Your task to perform on an android device: Go to ESPN.com Image 0: 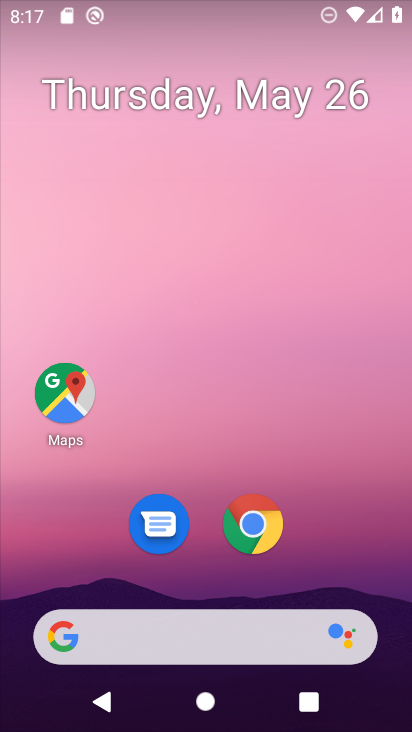
Step 0: click (248, 640)
Your task to perform on an android device: Go to ESPN.com Image 1: 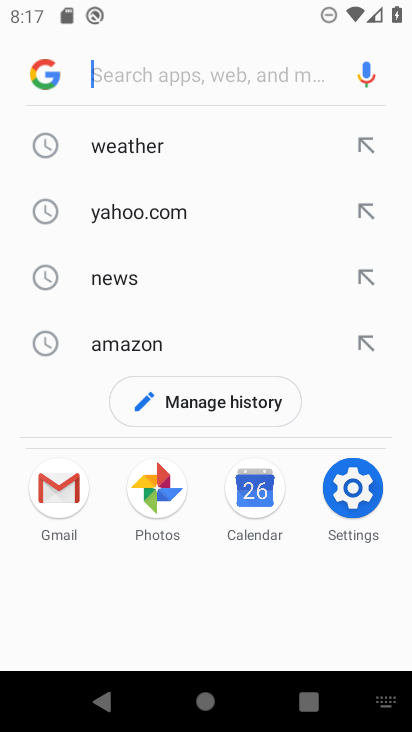
Step 1: type "espn.com"
Your task to perform on an android device: Go to ESPN.com Image 2: 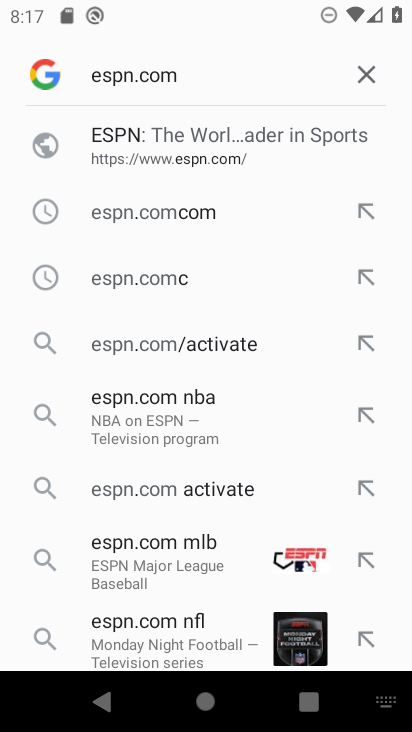
Step 2: click (115, 143)
Your task to perform on an android device: Go to ESPN.com Image 3: 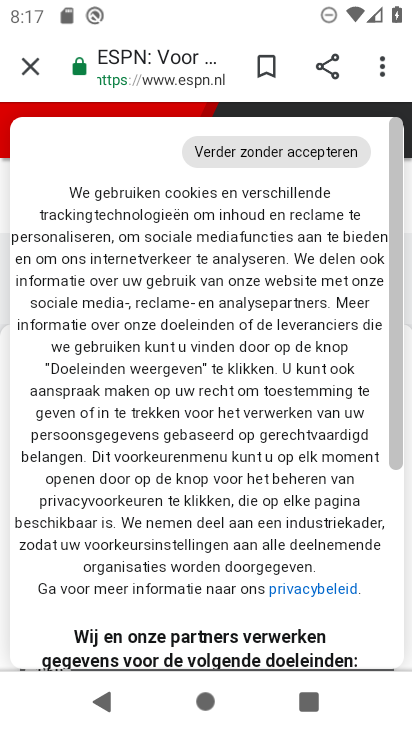
Step 3: task complete